Your task to perform on an android device: Do I have any events this weekend? Image 0: 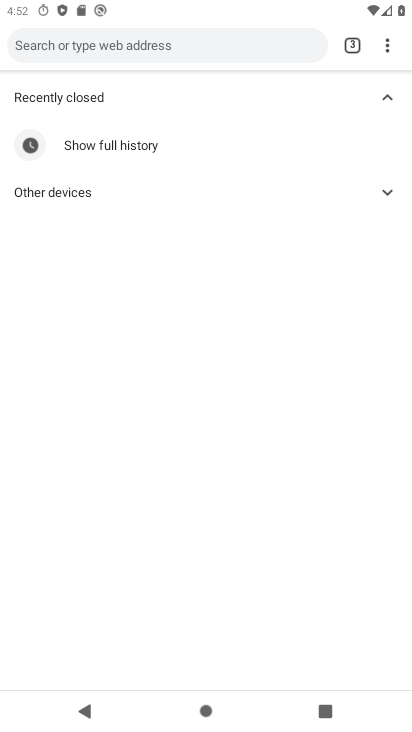
Step 0: press home button
Your task to perform on an android device: Do I have any events this weekend? Image 1: 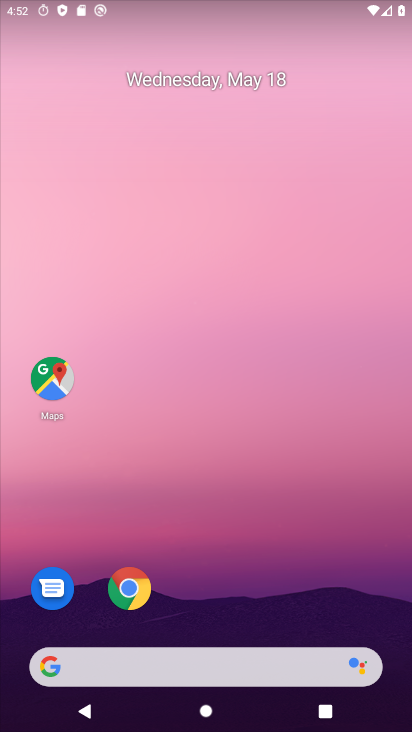
Step 1: drag from (183, 579) to (194, 70)
Your task to perform on an android device: Do I have any events this weekend? Image 2: 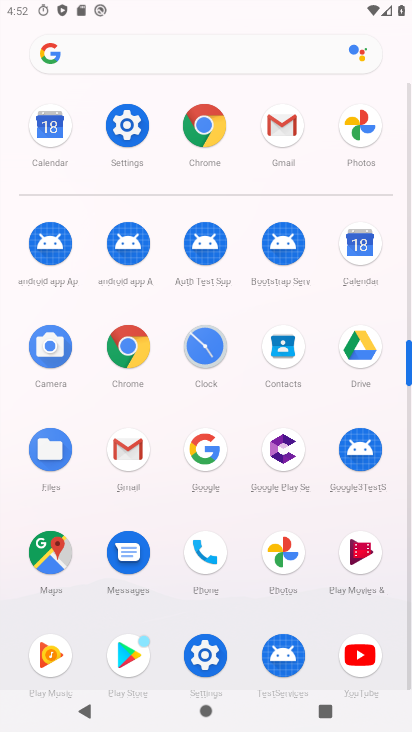
Step 2: click (359, 246)
Your task to perform on an android device: Do I have any events this weekend? Image 3: 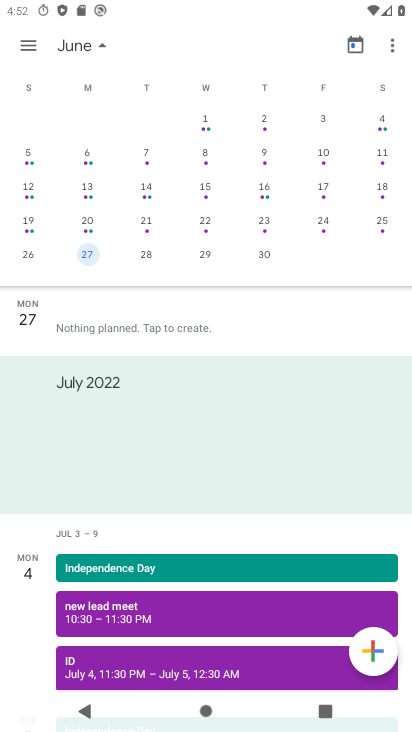
Step 3: drag from (39, 134) to (353, 135)
Your task to perform on an android device: Do I have any events this weekend? Image 4: 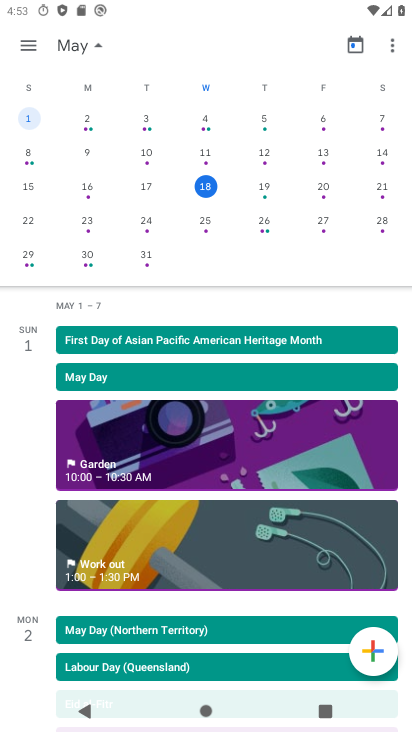
Step 4: click (319, 185)
Your task to perform on an android device: Do I have any events this weekend? Image 5: 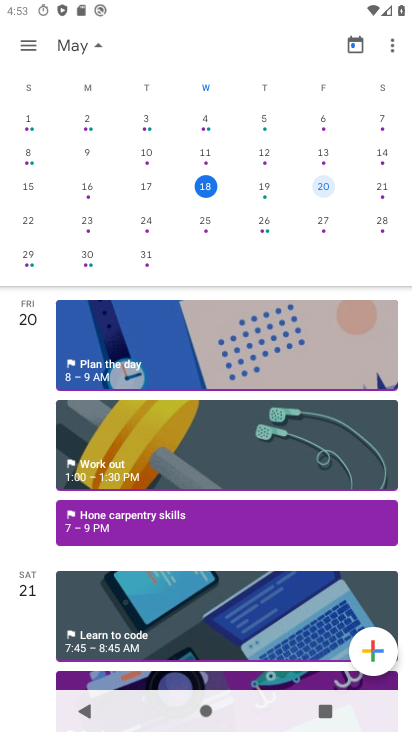
Step 5: task complete